Your task to perform on an android device: What's the weather going to be tomorrow? Image 0: 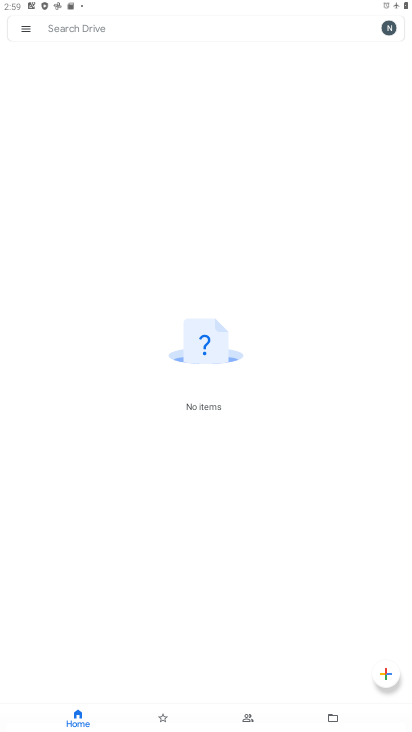
Step 0: press back button
Your task to perform on an android device: What's the weather going to be tomorrow? Image 1: 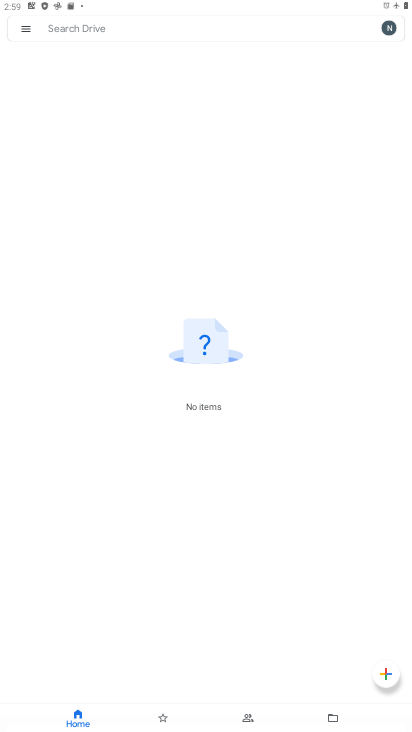
Step 1: task complete